Your task to perform on an android device: Open Android settings Image 0: 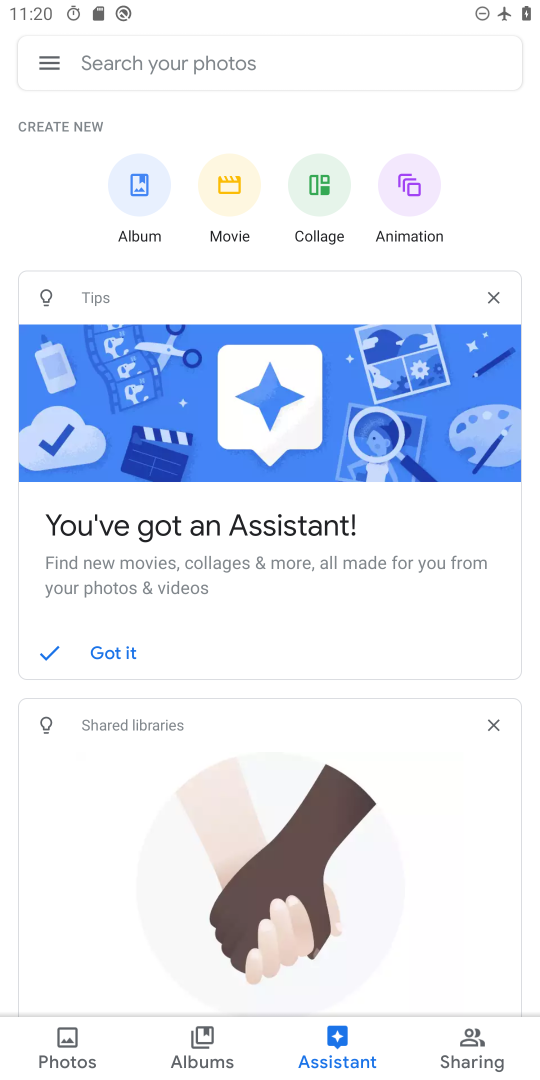
Step 0: press home button
Your task to perform on an android device: Open Android settings Image 1: 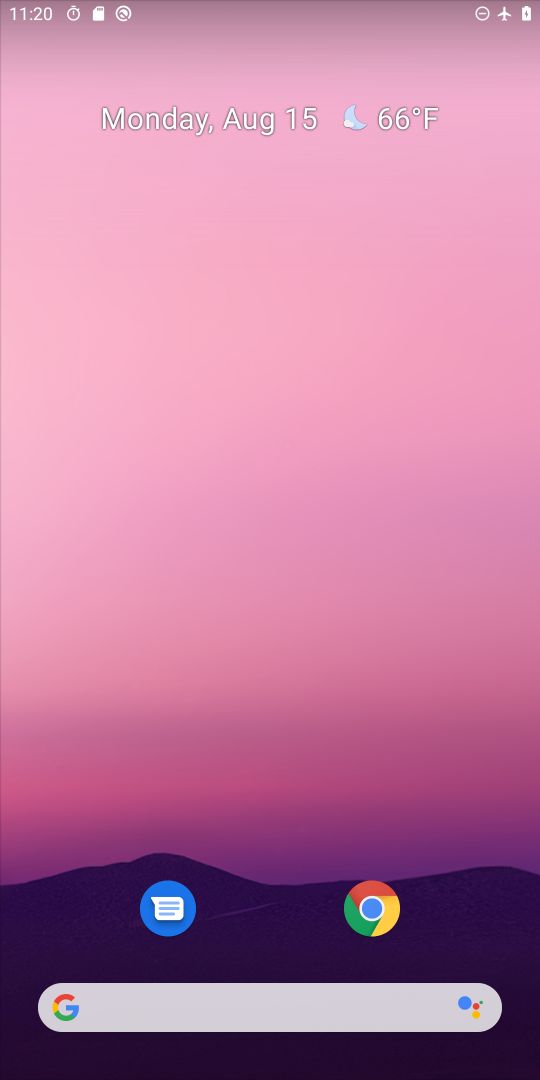
Step 1: drag from (195, 394) to (227, 124)
Your task to perform on an android device: Open Android settings Image 2: 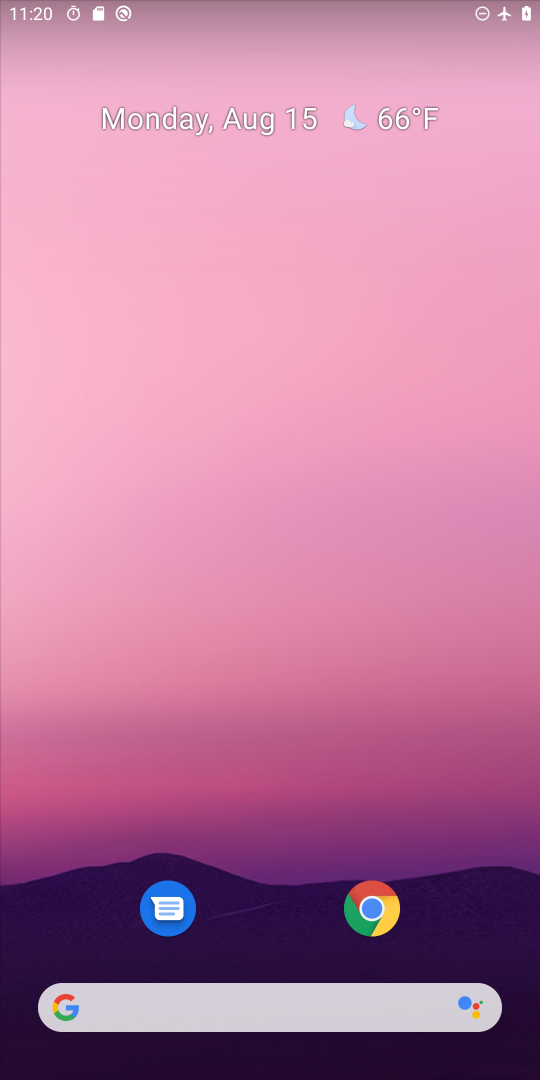
Step 2: drag from (267, 938) to (361, 91)
Your task to perform on an android device: Open Android settings Image 3: 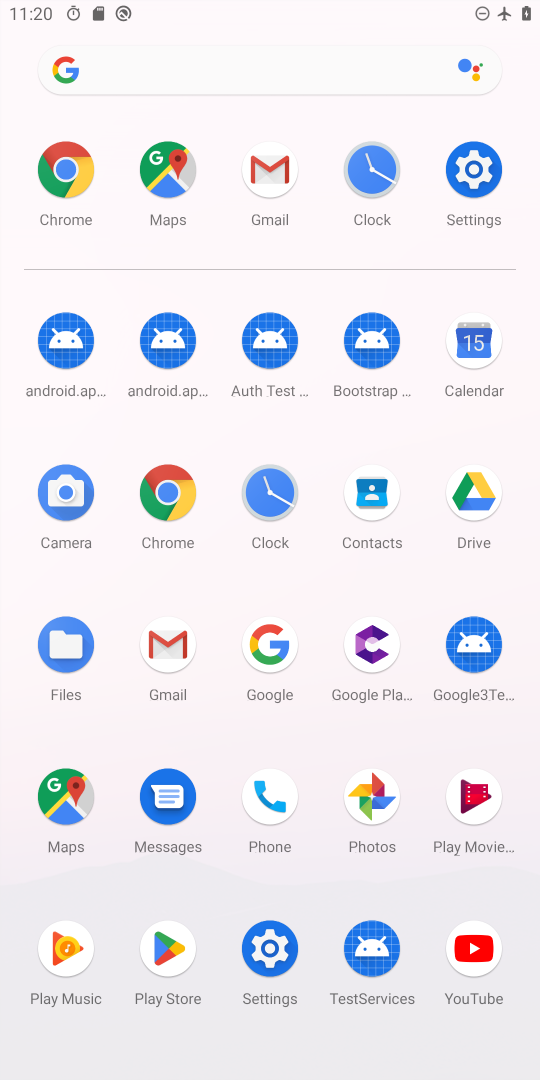
Step 3: click (483, 161)
Your task to perform on an android device: Open Android settings Image 4: 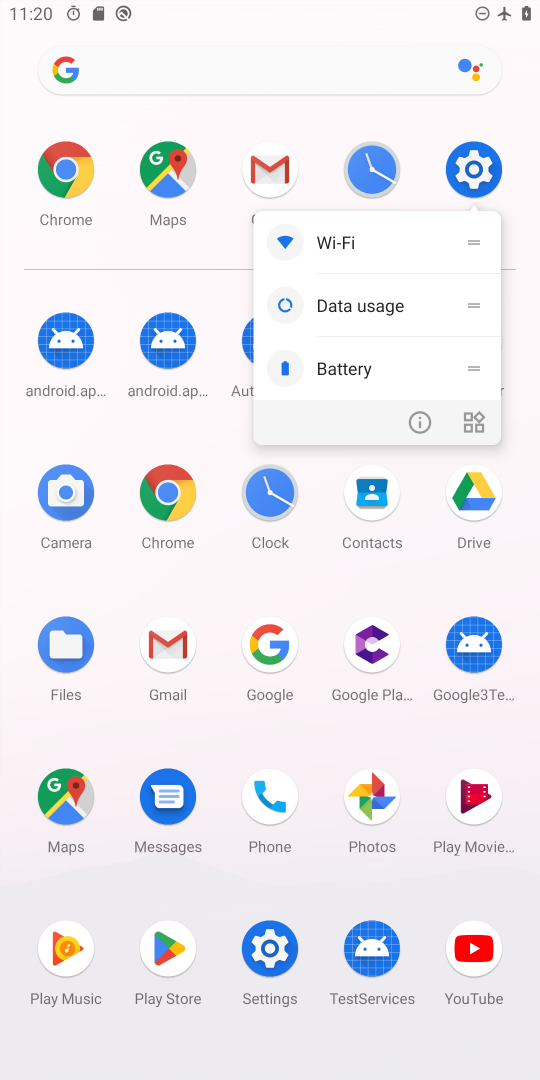
Step 4: click (483, 161)
Your task to perform on an android device: Open Android settings Image 5: 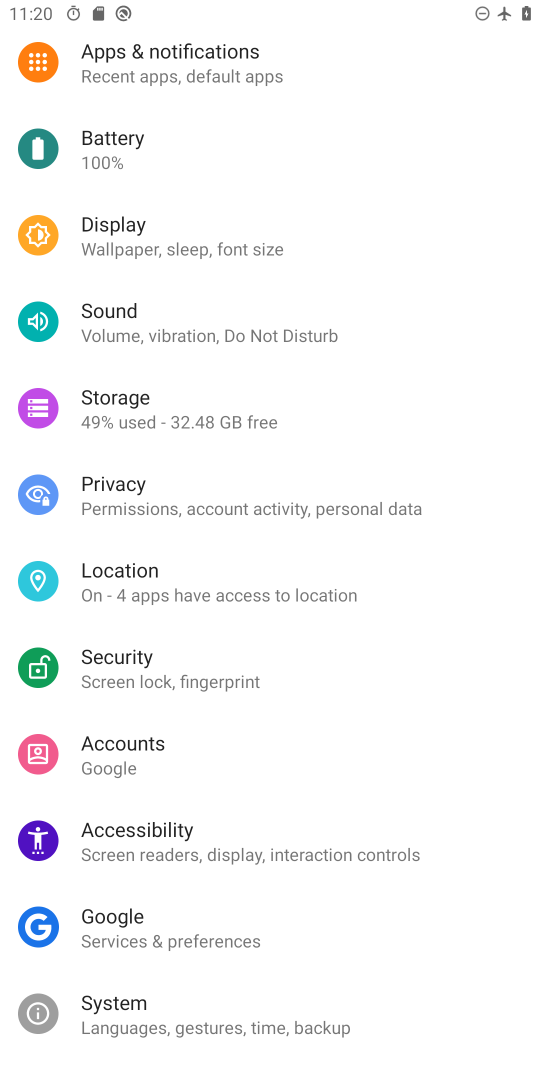
Step 5: task complete